Your task to perform on an android device: turn notification dots on Image 0: 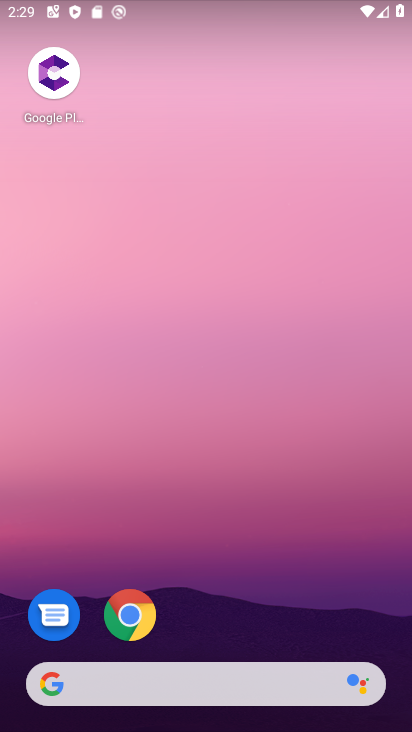
Step 0: drag from (283, 497) to (344, 83)
Your task to perform on an android device: turn notification dots on Image 1: 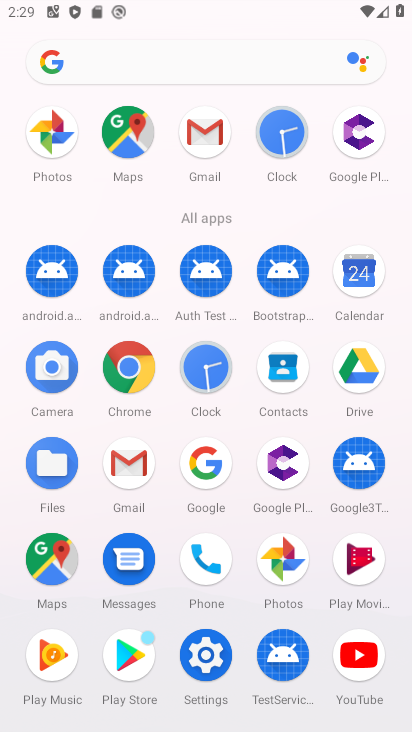
Step 1: click (211, 676)
Your task to perform on an android device: turn notification dots on Image 2: 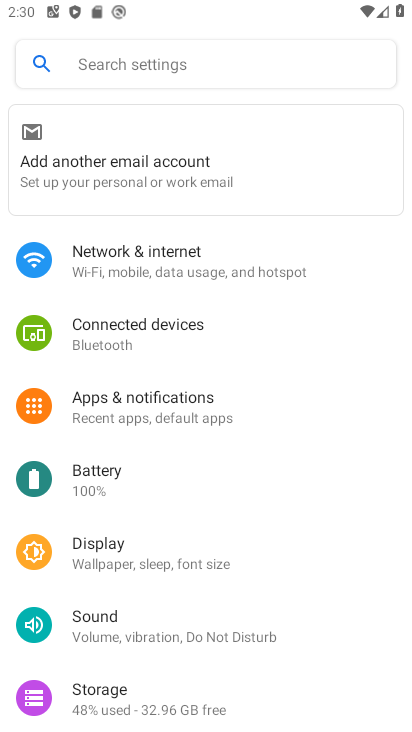
Step 2: click (232, 414)
Your task to perform on an android device: turn notification dots on Image 3: 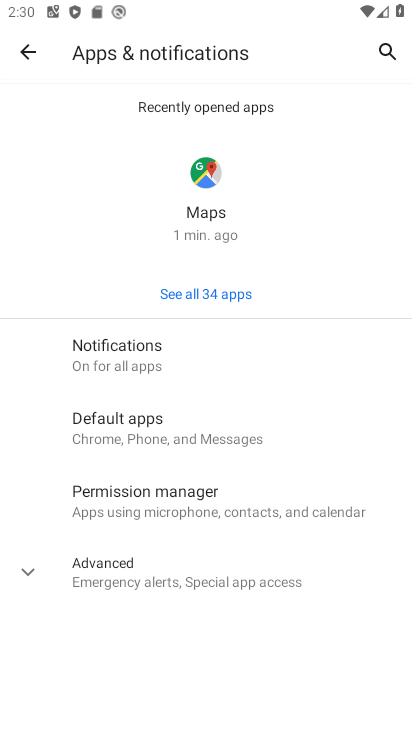
Step 3: click (219, 343)
Your task to perform on an android device: turn notification dots on Image 4: 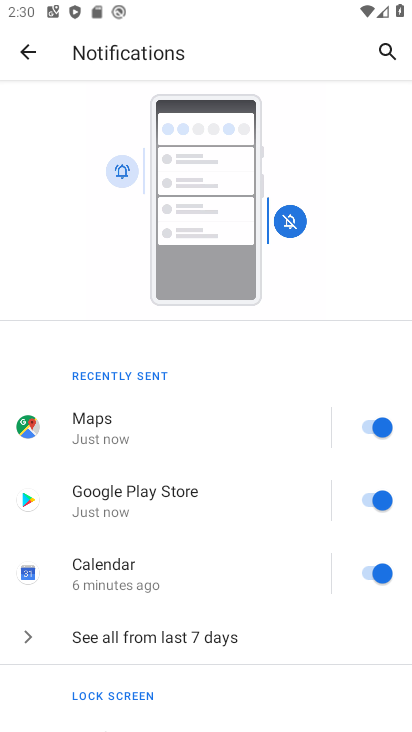
Step 4: drag from (193, 553) to (220, 219)
Your task to perform on an android device: turn notification dots on Image 5: 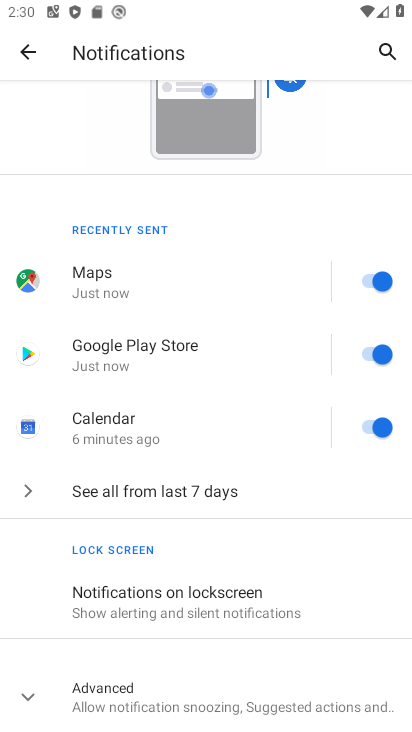
Step 5: drag from (164, 616) to (204, 244)
Your task to perform on an android device: turn notification dots on Image 6: 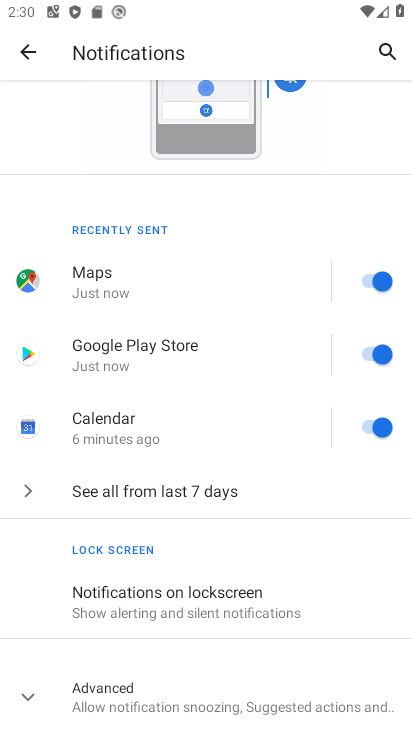
Step 6: click (219, 695)
Your task to perform on an android device: turn notification dots on Image 7: 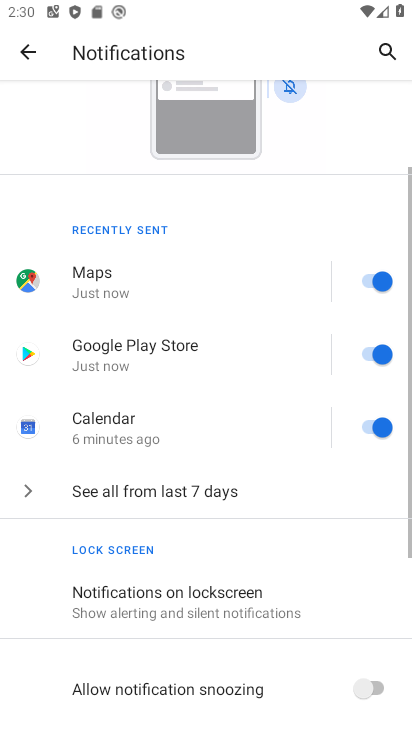
Step 7: task complete